Your task to perform on an android device: choose inbox layout in the gmail app Image 0: 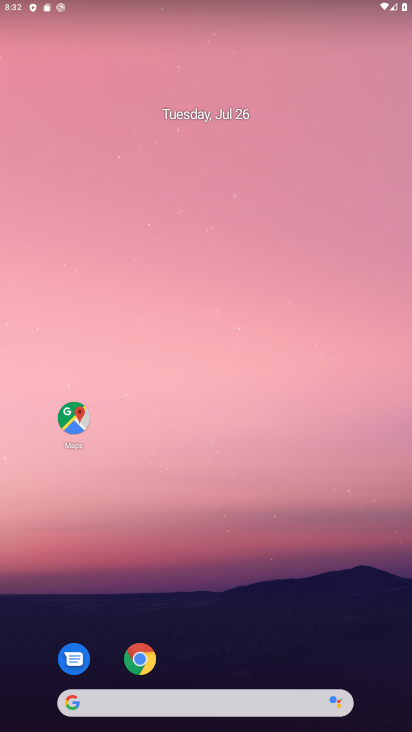
Step 0: drag from (382, 685) to (344, 205)
Your task to perform on an android device: choose inbox layout in the gmail app Image 1: 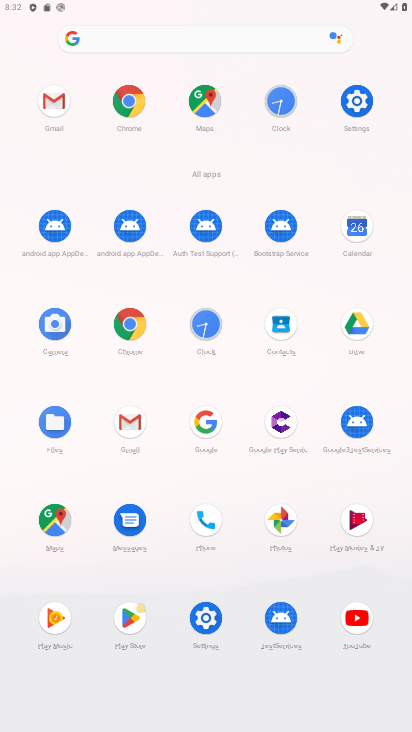
Step 1: click (130, 421)
Your task to perform on an android device: choose inbox layout in the gmail app Image 2: 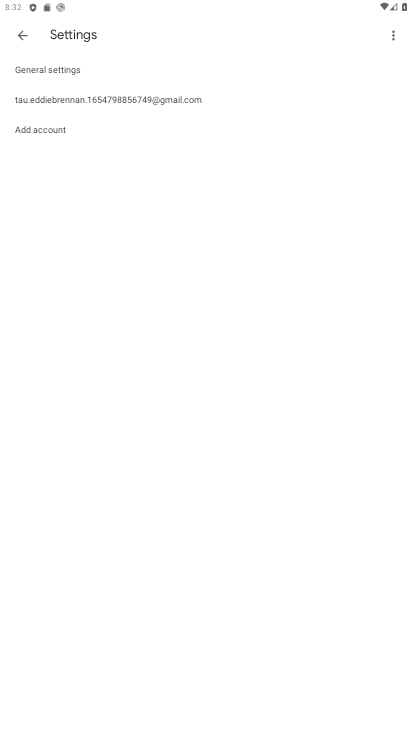
Step 2: click (110, 99)
Your task to perform on an android device: choose inbox layout in the gmail app Image 3: 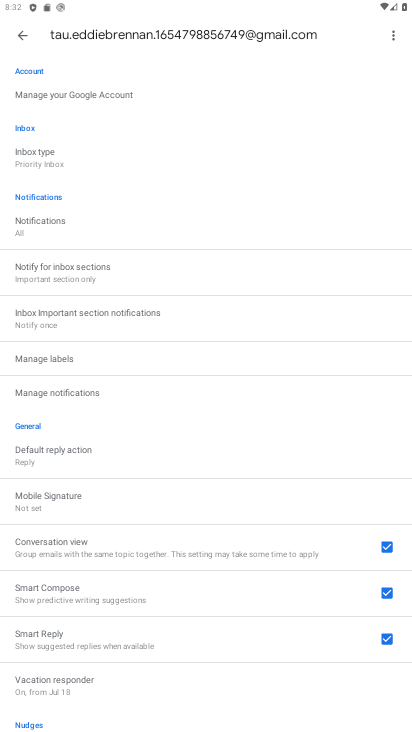
Step 3: click (61, 172)
Your task to perform on an android device: choose inbox layout in the gmail app Image 4: 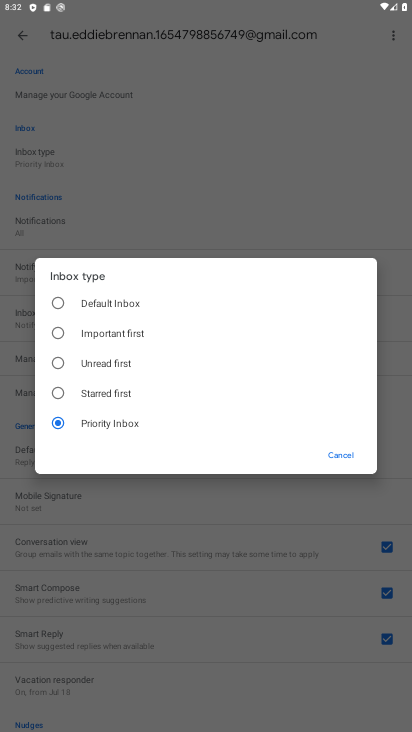
Step 4: click (51, 297)
Your task to perform on an android device: choose inbox layout in the gmail app Image 5: 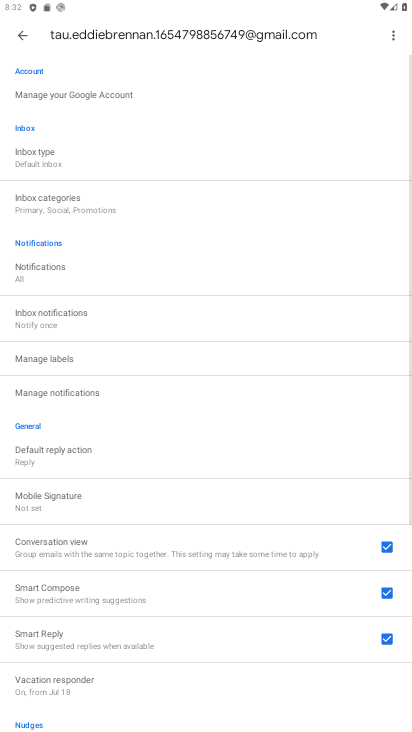
Step 5: task complete